Your task to perform on an android device: Go to display settings Image 0: 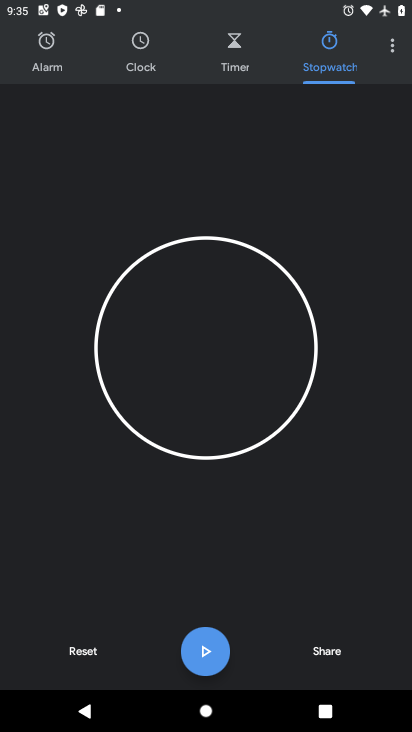
Step 0: press home button
Your task to perform on an android device: Go to display settings Image 1: 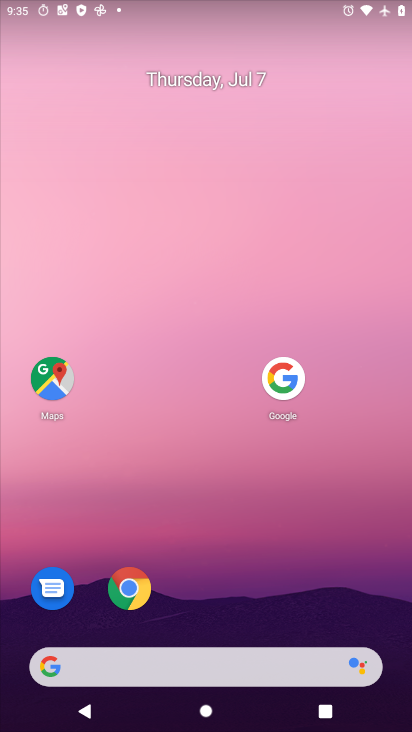
Step 1: drag from (163, 669) to (280, 56)
Your task to perform on an android device: Go to display settings Image 2: 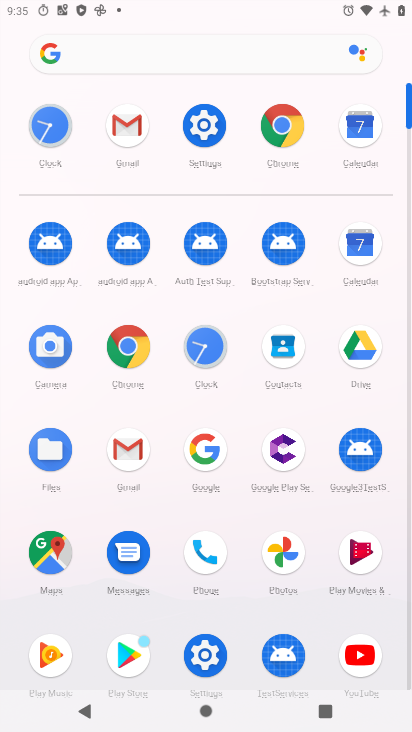
Step 2: click (207, 125)
Your task to perform on an android device: Go to display settings Image 3: 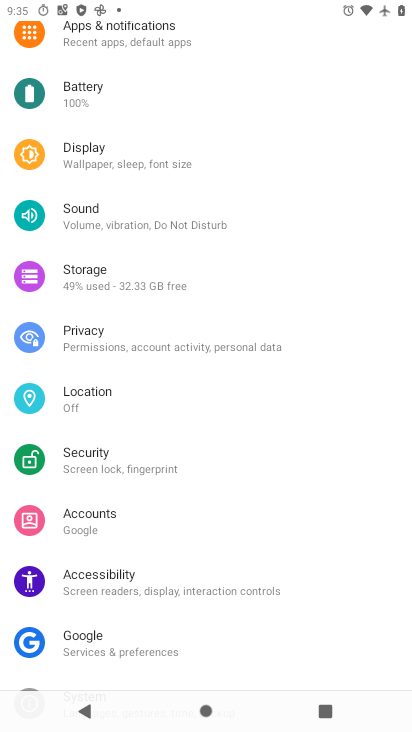
Step 3: click (101, 162)
Your task to perform on an android device: Go to display settings Image 4: 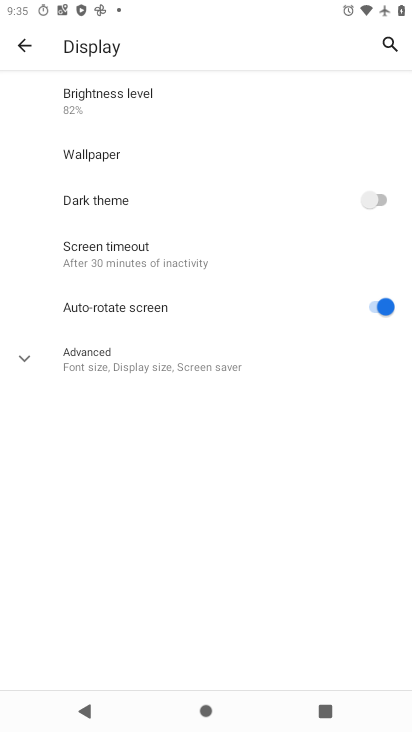
Step 4: click (108, 363)
Your task to perform on an android device: Go to display settings Image 5: 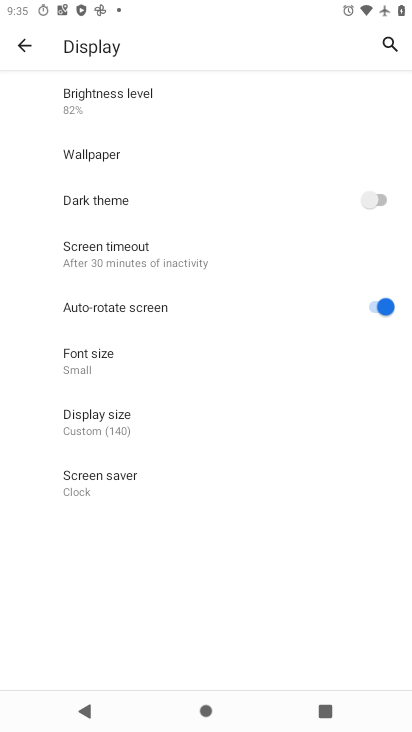
Step 5: task complete